Your task to perform on an android device: Search for sushi restaurants on Maps Image 0: 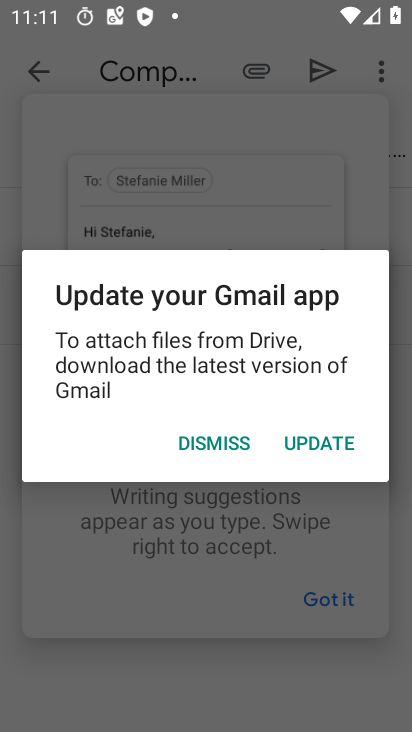
Step 0: press home button
Your task to perform on an android device: Search for sushi restaurants on Maps Image 1: 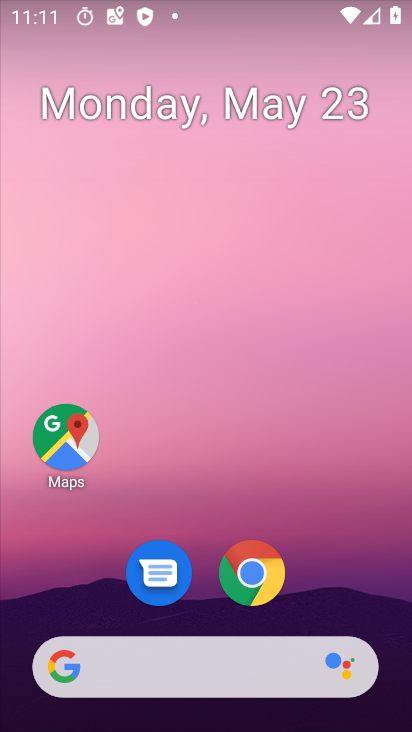
Step 1: click (65, 440)
Your task to perform on an android device: Search for sushi restaurants on Maps Image 2: 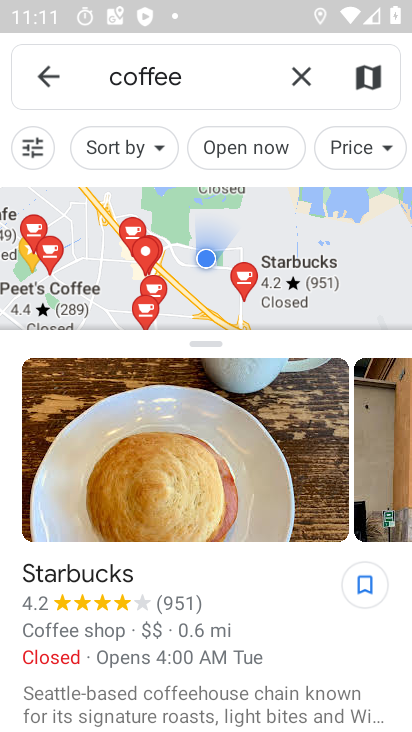
Step 2: click (300, 74)
Your task to perform on an android device: Search for sushi restaurants on Maps Image 3: 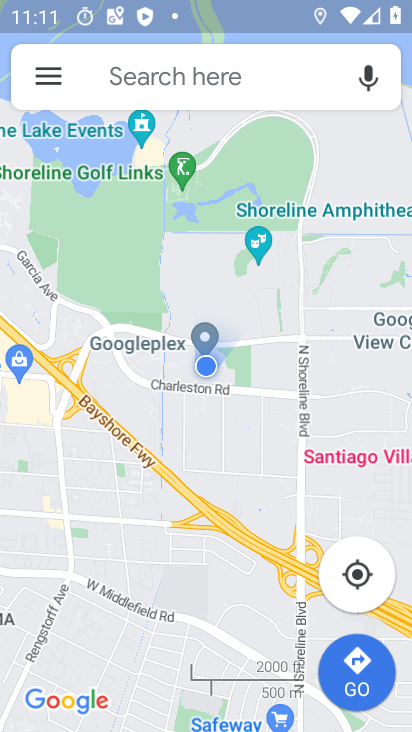
Step 3: click (248, 82)
Your task to perform on an android device: Search for sushi restaurants on Maps Image 4: 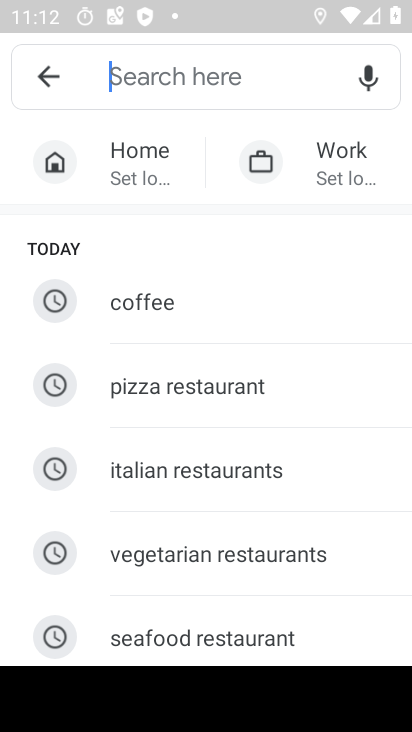
Step 4: type "sushi restaurants"
Your task to perform on an android device: Search for sushi restaurants on Maps Image 5: 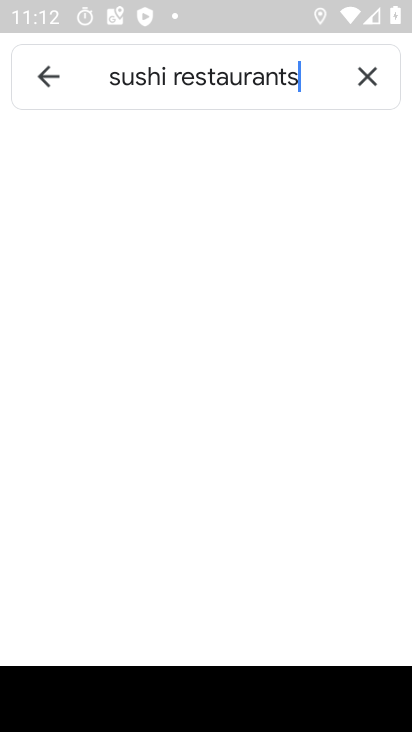
Step 5: type ""
Your task to perform on an android device: Search for sushi restaurants on Maps Image 6: 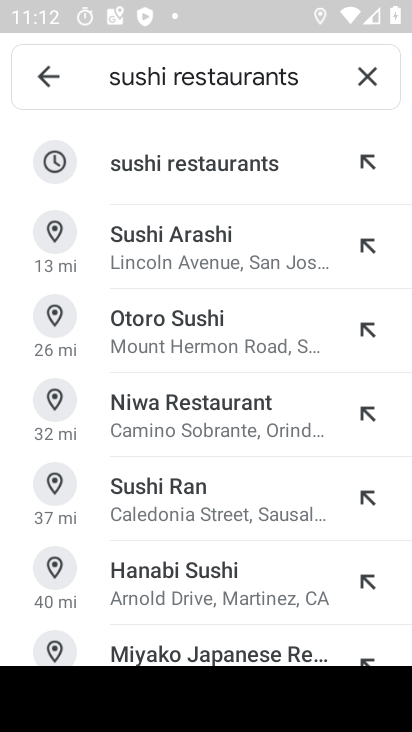
Step 6: click (183, 171)
Your task to perform on an android device: Search for sushi restaurants on Maps Image 7: 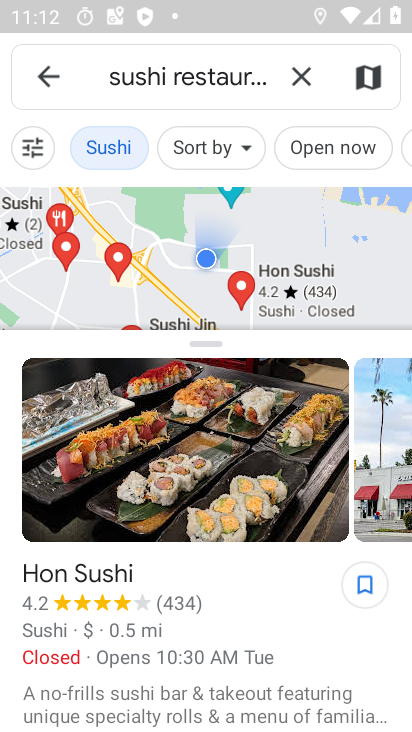
Step 7: task complete